Your task to perform on an android device: toggle translation in the chrome app Image 0: 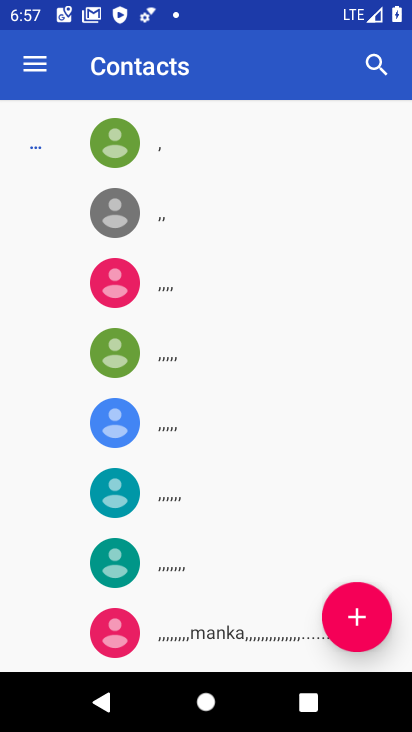
Step 0: press home button
Your task to perform on an android device: toggle translation in the chrome app Image 1: 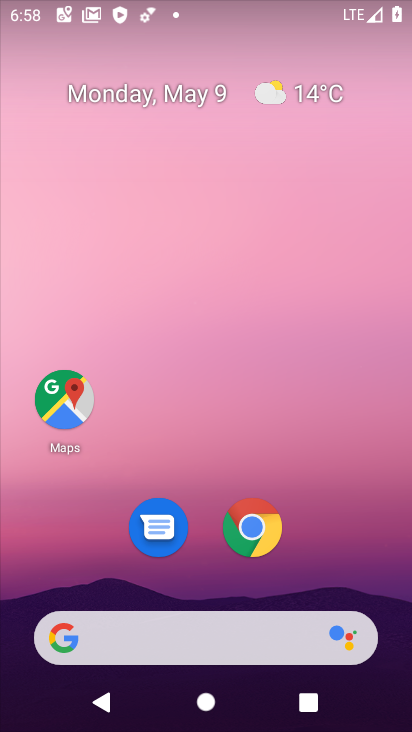
Step 1: click (251, 530)
Your task to perform on an android device: toggle translation in the chrome app Image 2: 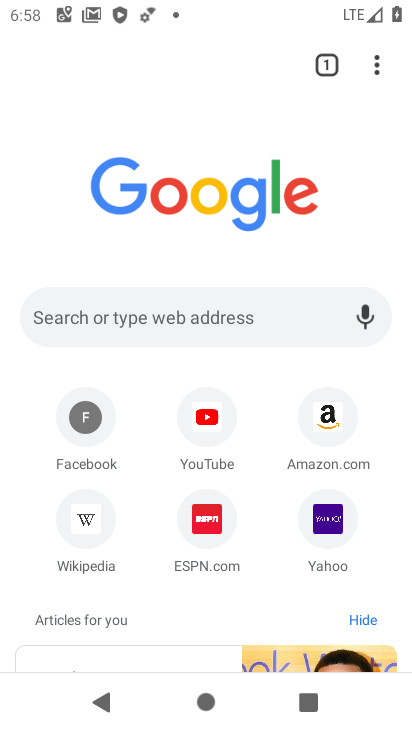
Step 2: click (377, 64)
Your task to perform on an android device: toggle translation in the chrome app Image 3: 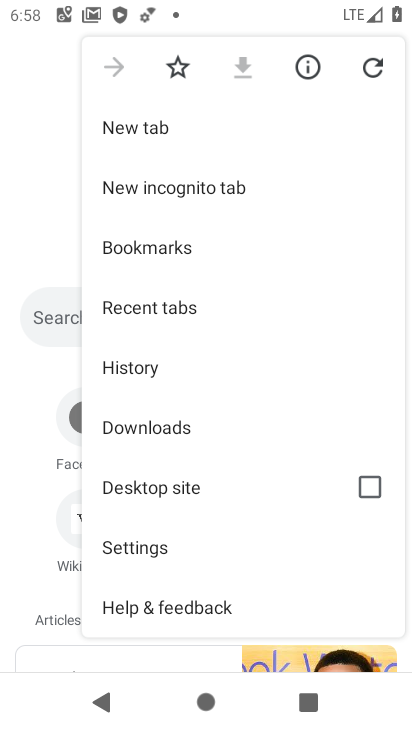
Step 3: click (139, 546)
Your task to perform on an android device: toggle translation in the chrome app Image 4: 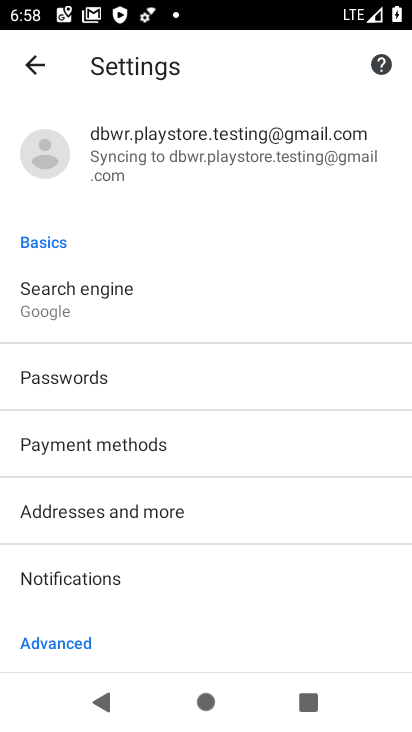
Step 4: drag from (150, 559) to (145, 451)
Your task to perform on an android device: toggle translation in the chrome app Image 5: 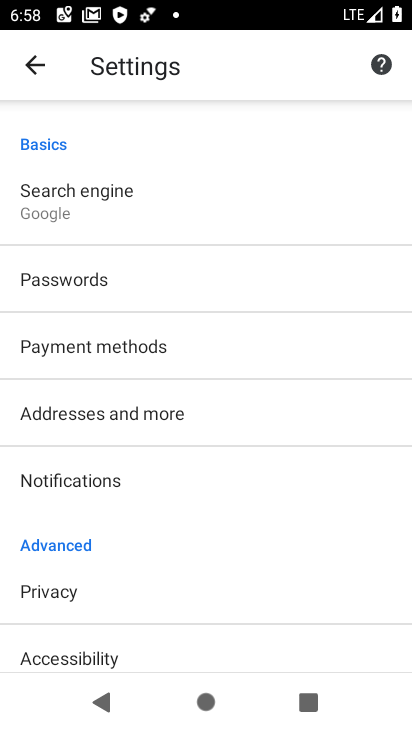
Step 5: drag from (113, 572) to (131, 470)
Your task to perform on an android device: toggle translation in the chrome app Image 6: 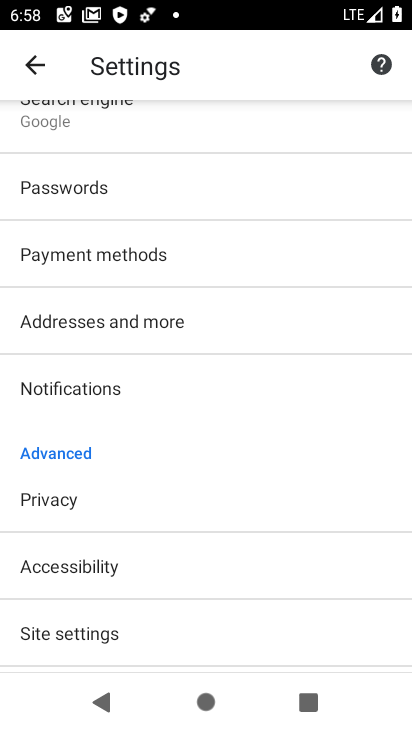
Step 6: drag from (112, 613) to (147, 477)
Your task to perform on an android device: toggle translation in the chrome app Image 7: 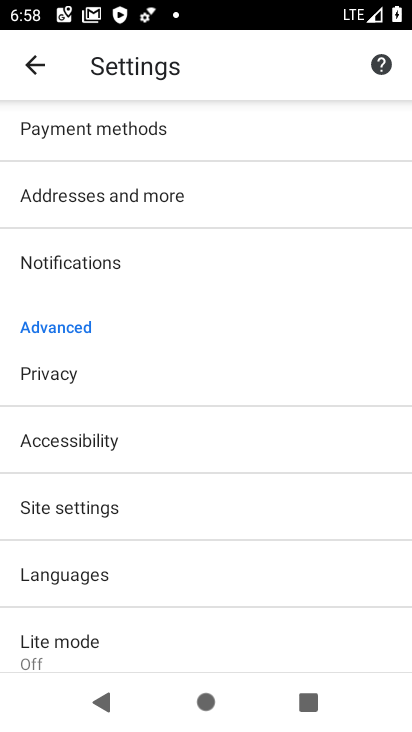
Step 7: click (52, 576)
Your task to perform on an android device: toggle translation in the chrome app Image 8: 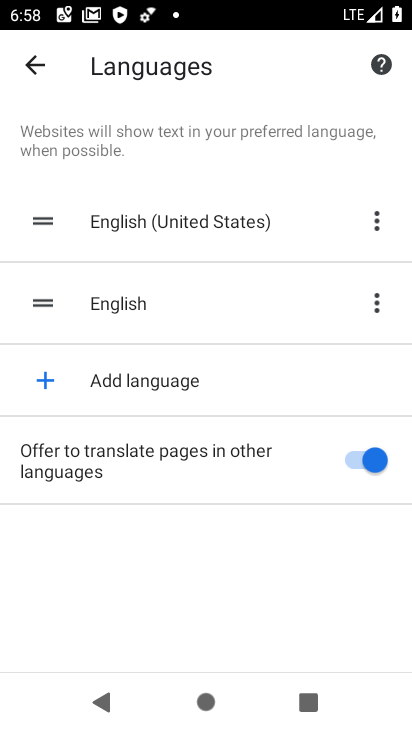
Step 8: click (366, 459)
Your task to perform on an android device: toggle translation in the chrome app Image 9: 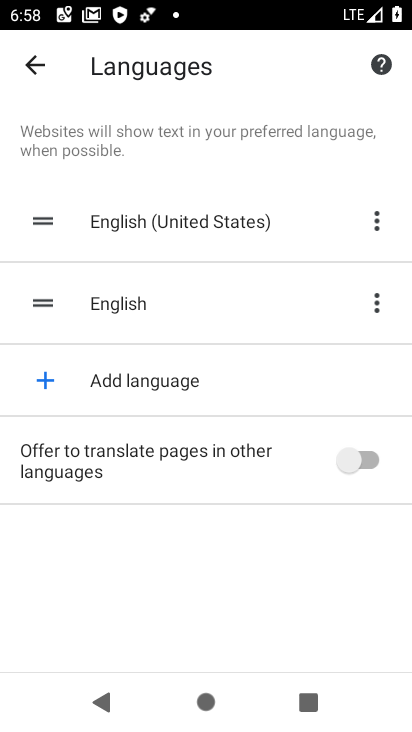
Step 9: task complete